Your task to perform on an android device: open a bookmark in the chrome app Image 0: 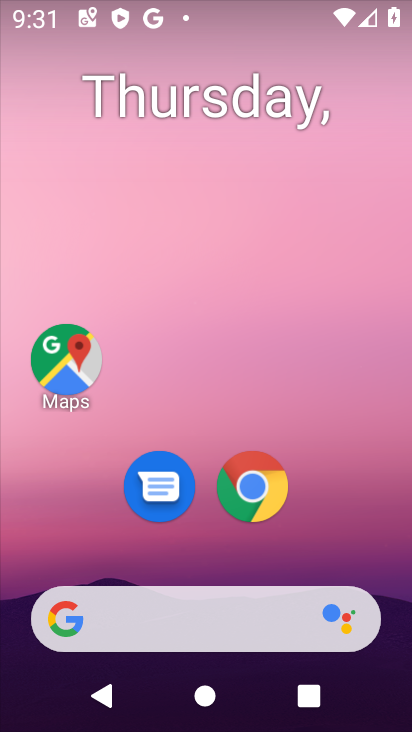
Step 0: click (242, 474)
Your task to perform on an android device: open a bookmark in the chrome app Image 1: 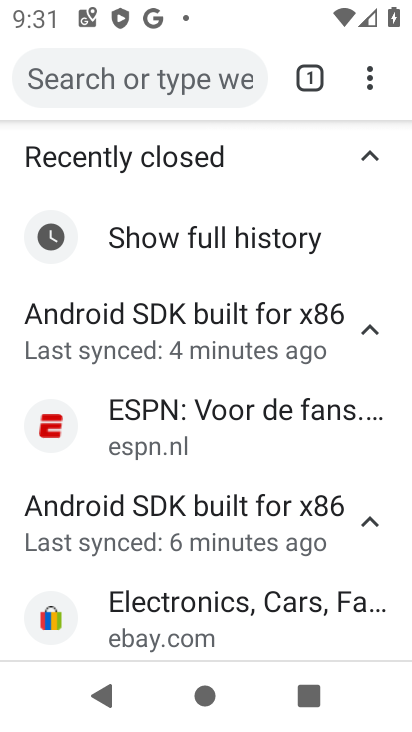
Step 1: click (365, 69)
Your task to perform on an android device: open a bookmark in the chrome app Image 2: 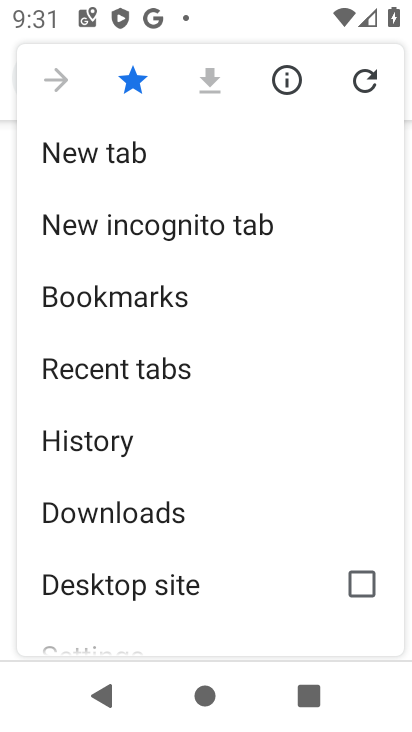
Step 2: click (115, 318)
Your task to perform on an android device: open a bookmark in the chrome app Image 3: 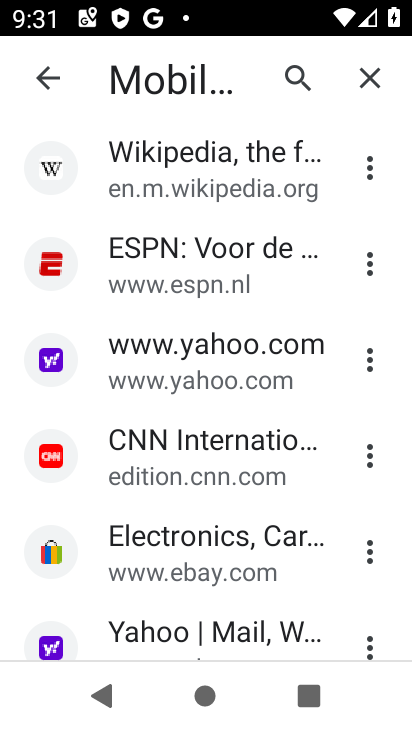
Step 3: click (128, 273)
Your task to perform on an android device: open a bookmark in the chrome app Image 4: 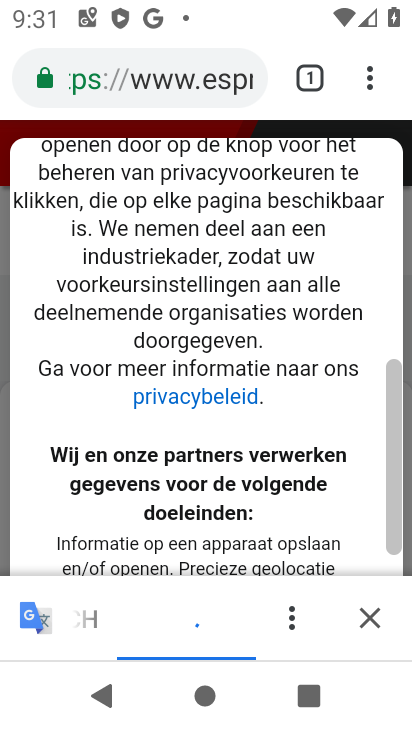
Step 4: task complete